Your task to perform on an android device: Open battery settings Image 0: 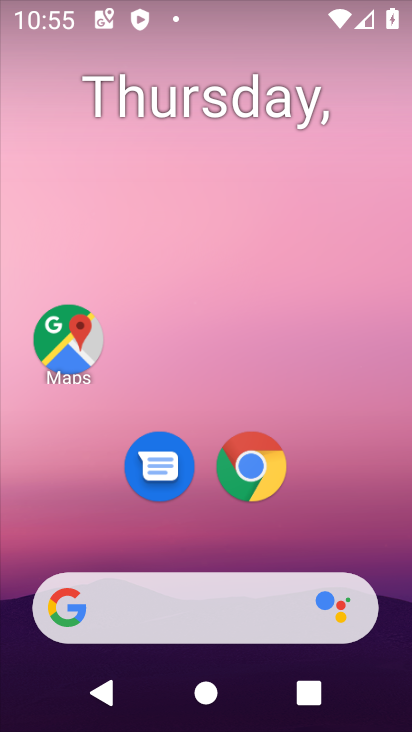
Step 0: drag from (186, 541) to (306, 45)
Your task to perform on an android device: Open battery settings Image 1: 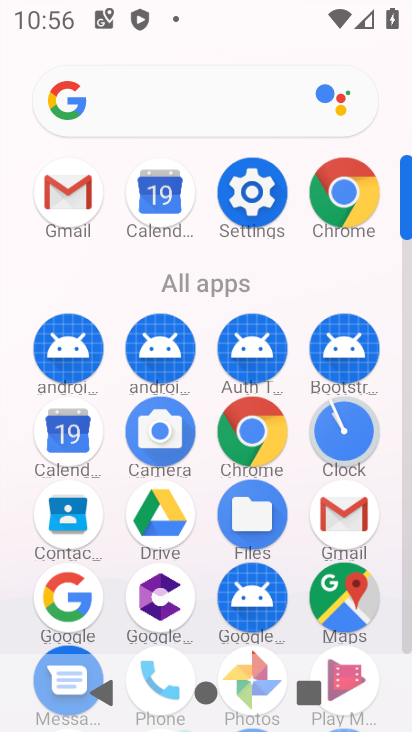
Step 1: click (246, 207)
Your task to perform on an android device: Open battery settings Image 2: 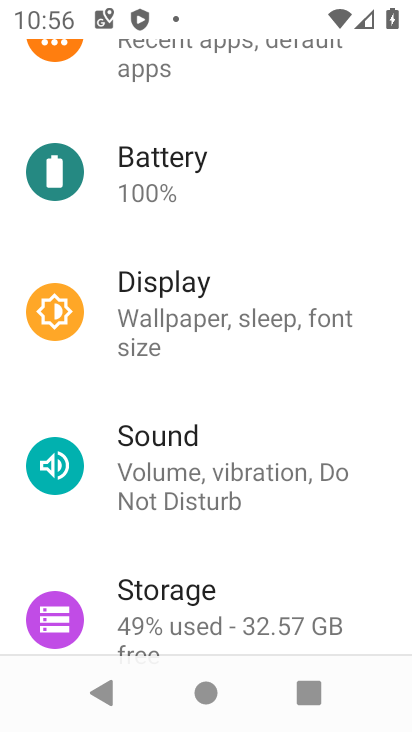
Step 2: click (222, 149)
Your task to perform on an android device: Open battery settings Image 3: 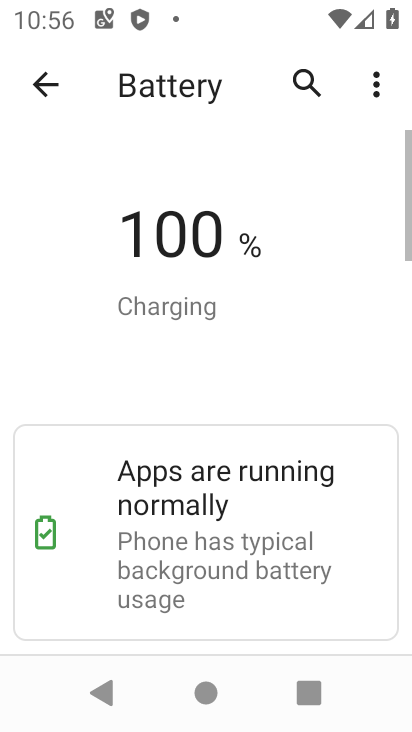
Step 3: task complete